Your task to perform on an android device: Open wifi settings Image 0: 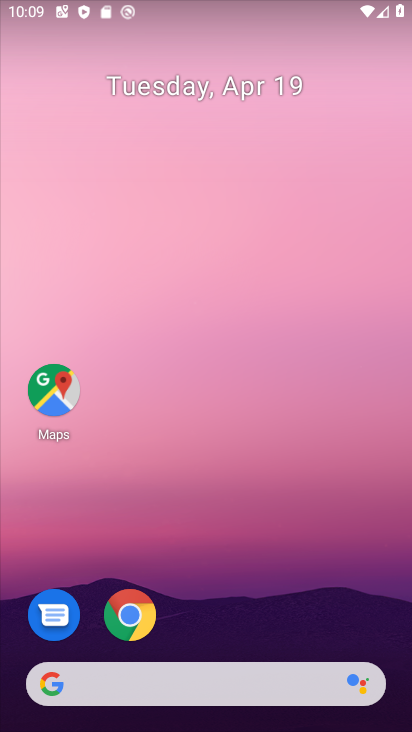
Step 0: drag from (201, 647) to (251, 205)
Your task to perform on an android device: Open wifi settings Image 1: 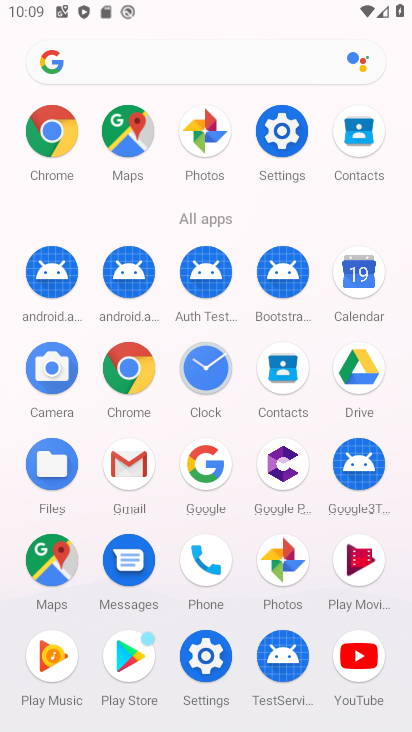
Step 1: click (208, 640)
Your task to perform on an android device: Open wifi settings Image 2: 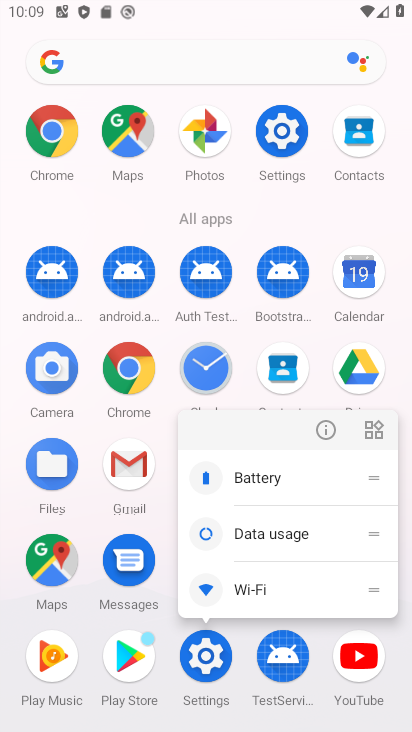
Step 2: click (328, 428)
Your task to perform on an android device: Open wifi settings Image 3: 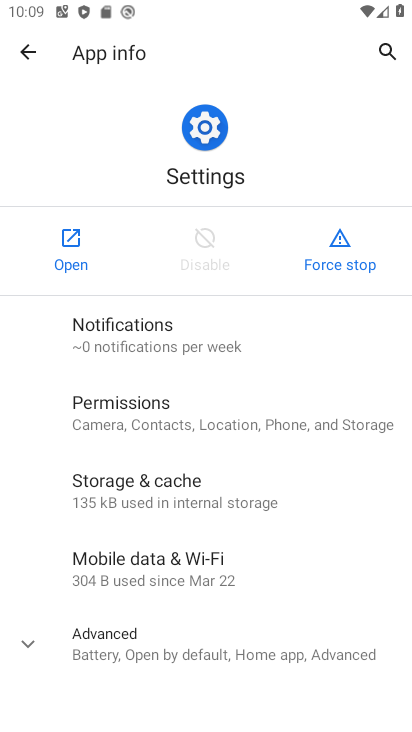
Step 3: click (74, 252)
Your task to perform on an android device: Open wifi settings Image 4: 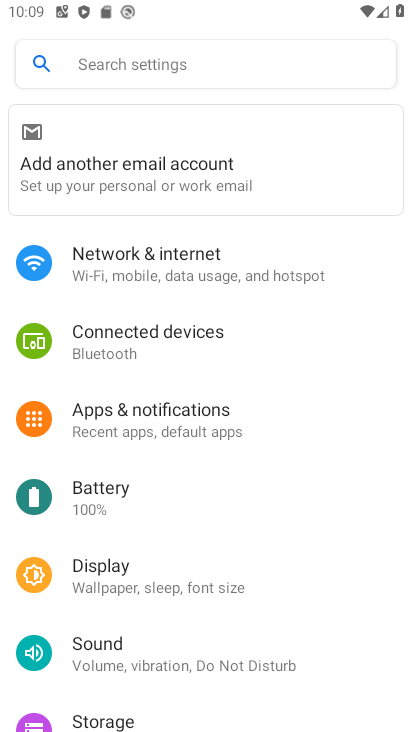
Step 4: drag from (163, 623) to (221, 364)
Your task to perform on an android device: Open wifi settings Image 5: 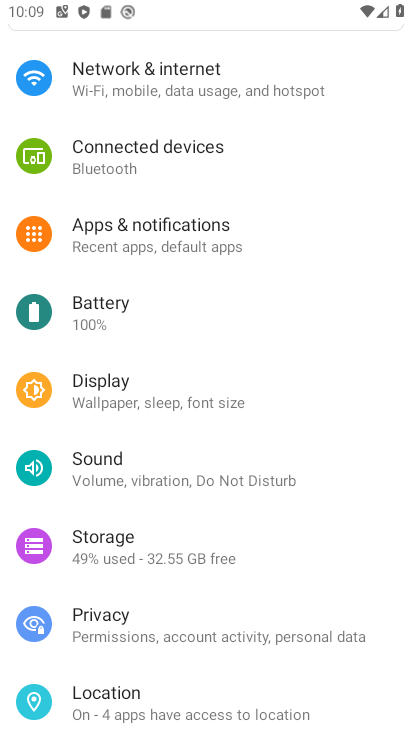
Step 5: click (228, 94)
Your task to perform on an android device: Open wifi settings Image 6: 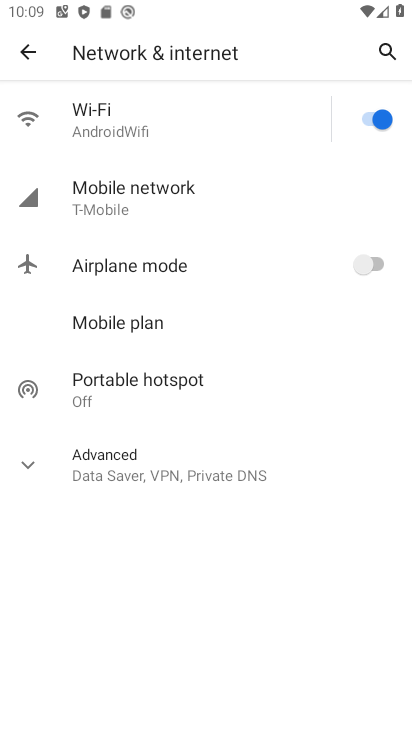
Step 6: drag from (280, 387) to (309, 223)
Your task to perform on an android device: Open wifi settings Image 7: 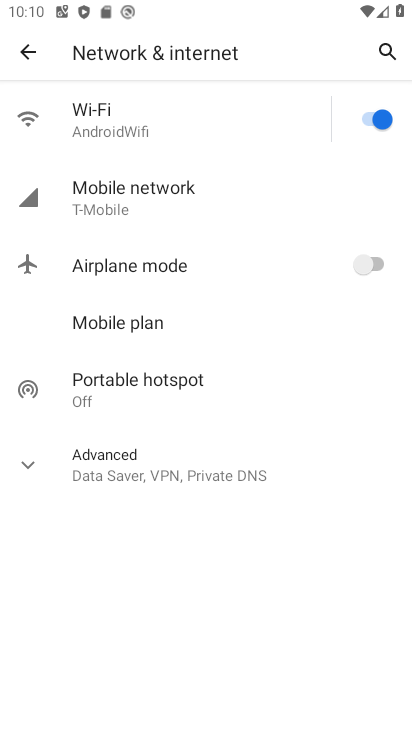
Step 7: click (253, 121)
Your task to perform on an android device: Open wifi settings Image 8: 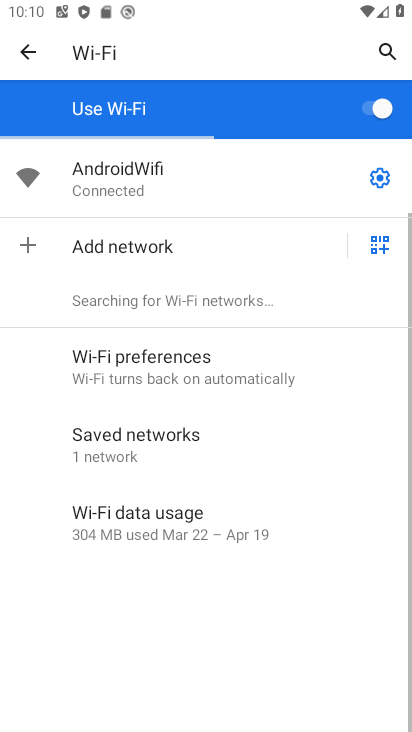
Step 8: task complete